Your task to perform on an android device: Do I have any events today? Image 0: 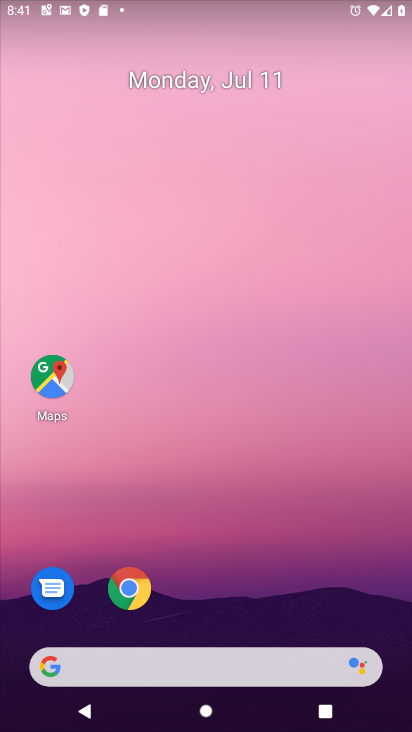
Step 0: drag from (143, 668) to (326, 155)
Your task to perform on an android device: Do I have any events today? Image 1: 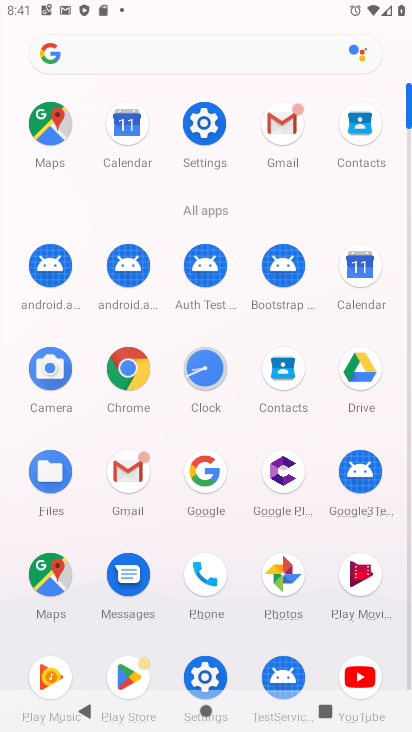
Step 1: click (121, 127)
Your task to perform on an android device: Do I have any events today? Image 2: 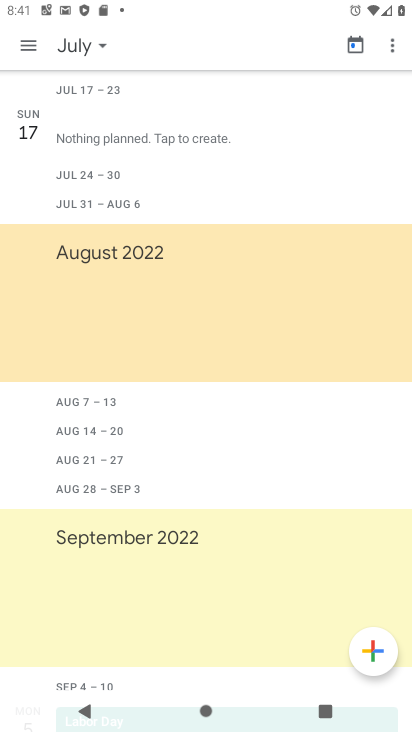
Step 2: click (77, 43)
Your task to perform on an android device: Do I have any events today? Image 3: 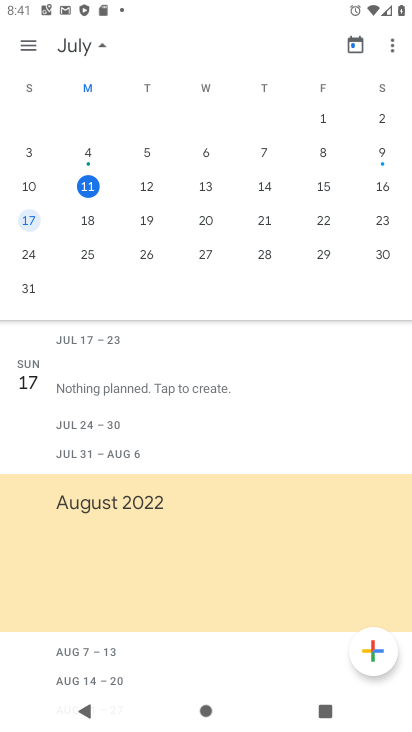
Step 3: click (89, 185)
Your task to perform on an android device: Do I have any events today? Image 4: 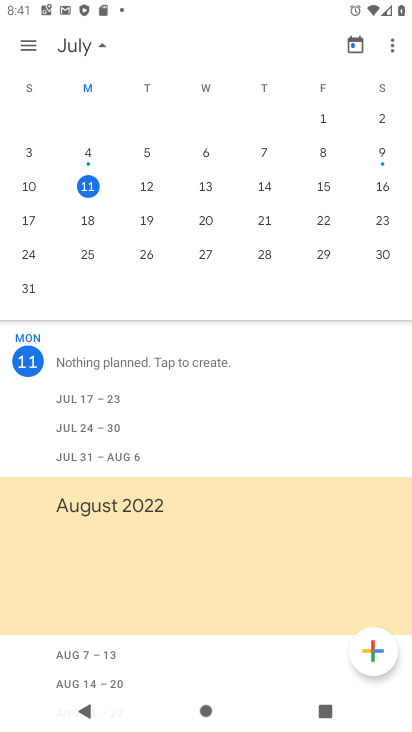
Step 4: click (29, 47)
Your task to perform on an android device: Do I have any events today? Image 5: 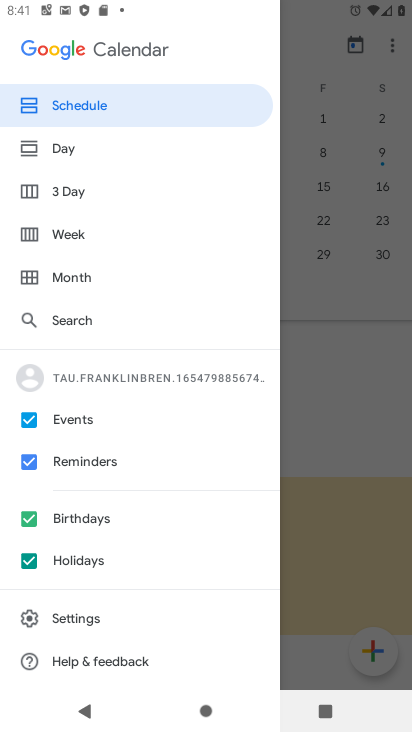
Step 5: click (83, 108)
Your task to perform on an android device: Do I have any events today? Image 6: 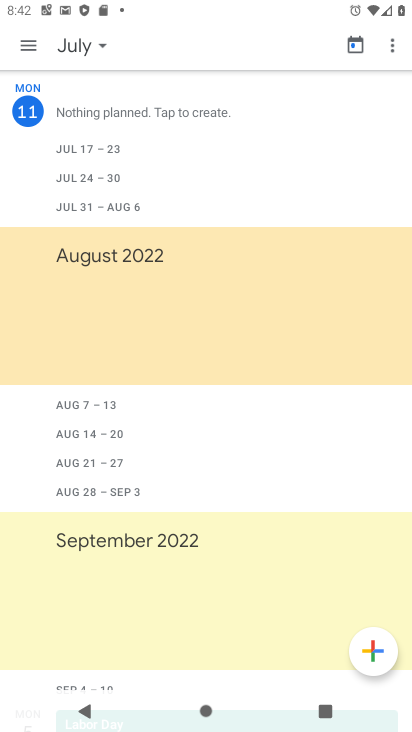
Step 6: task complete